Your task to perform on an android device: Check the news Image 0: 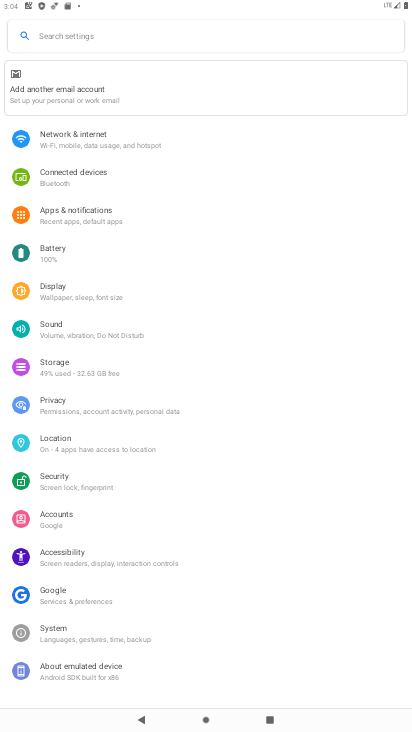
Step 0: press home button
Your task to perform on an android device: Check the news Image 1: 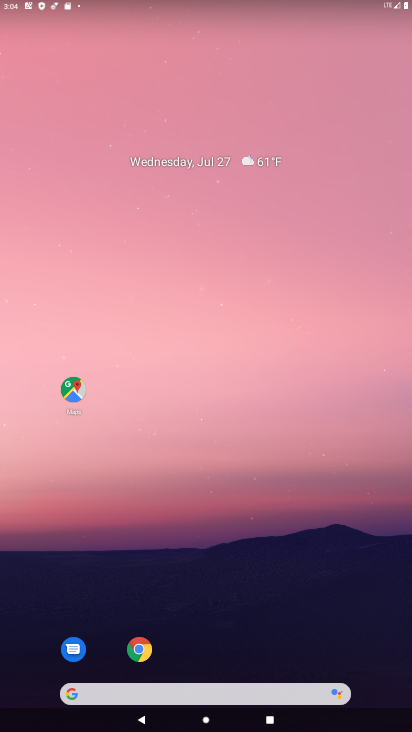
Step 1: drag from (201, 617) to (158, 214)
Your task to perform on an android device: Check the news Image 2: 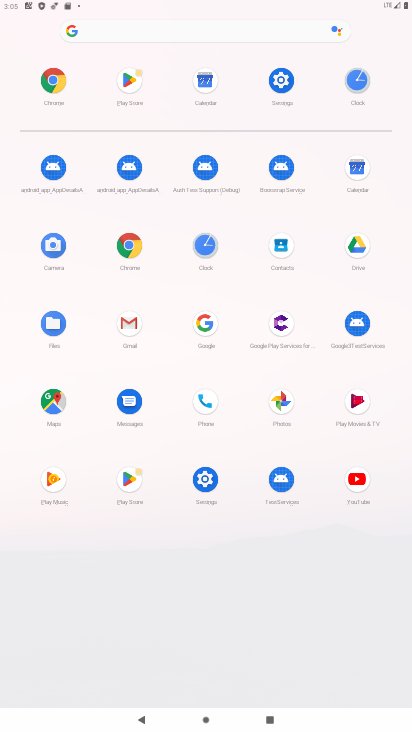
Step 2: click (198, 328)
Your task to perform on an android device: Check the news Image 3: 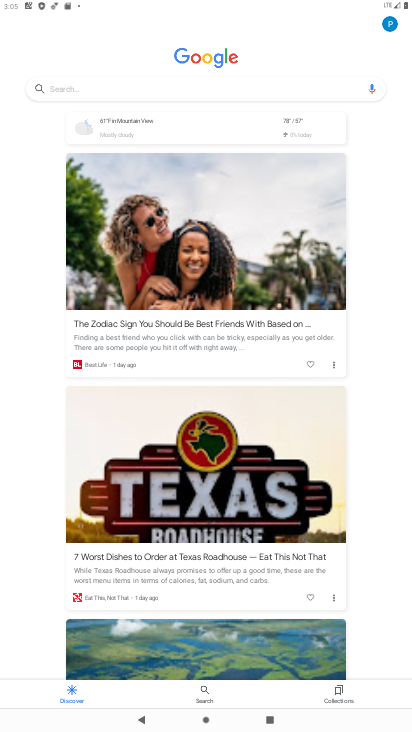
Step 3: click (117, 86)
Your task to perform on an android device: Check the news Image 4: 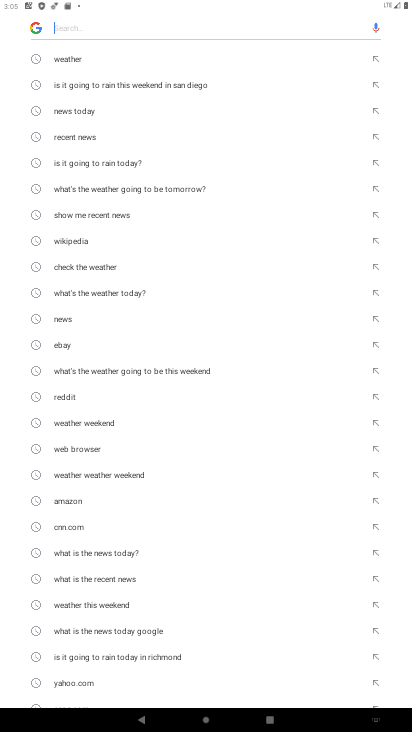
Step 4: click (74, 325)
Your task to perform on an android device: Check the news Image 5: 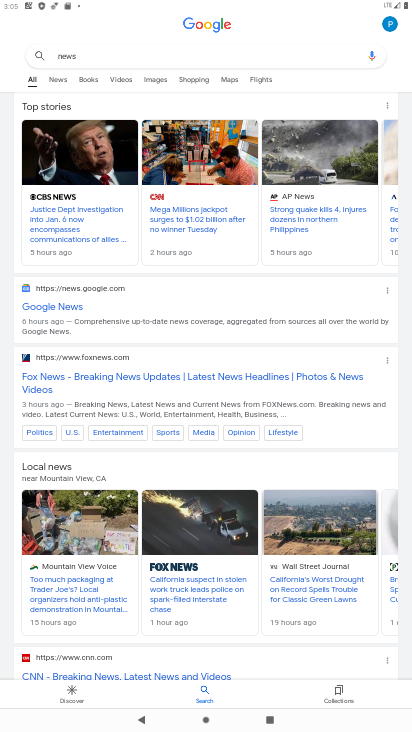
Step 5: task complete